Your task to perform on an android device: Open calendar and show me the first week of next month Image 0: 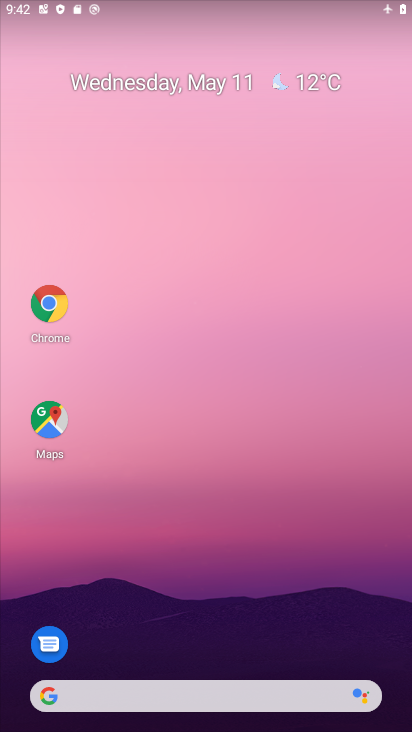
Step 0: drag from (206, 640) to (180, 259)
Your task to perform on an android device: Open calendar and show me the first week of next month Image 1: 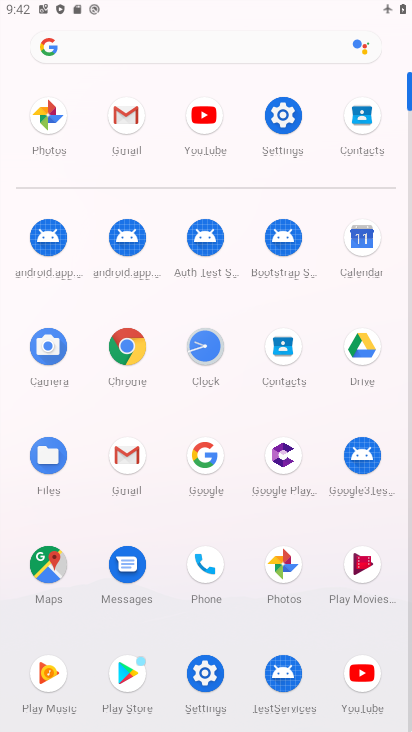
Step 1: click (359, 253)
Your task to perform on an android device: Open calendar and show me the first week of next month Image 2: 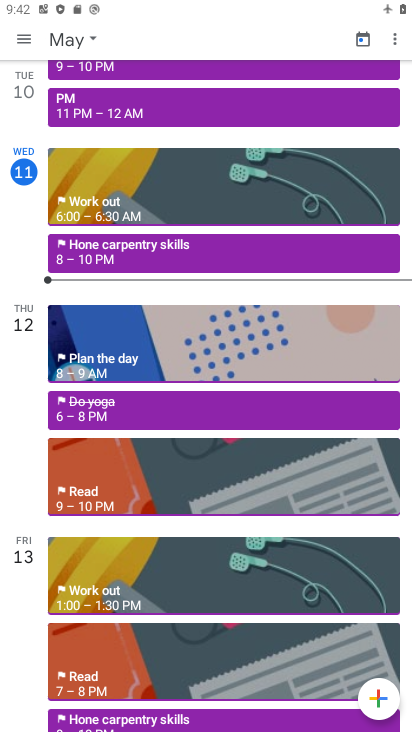
Step 2: click (27, 42)
Your task to perform on an android device: Open calendar and show me the first week of next month Image 3: 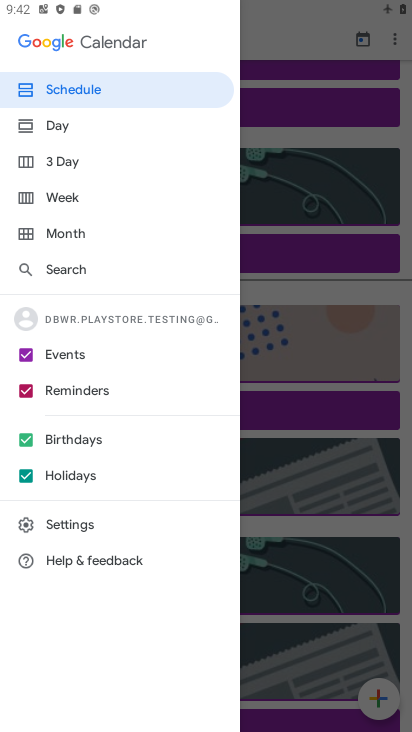
Step 3: click (260, 50)
Your task to perform on an android device: Open calendar and show me the first week of next month Image 4: 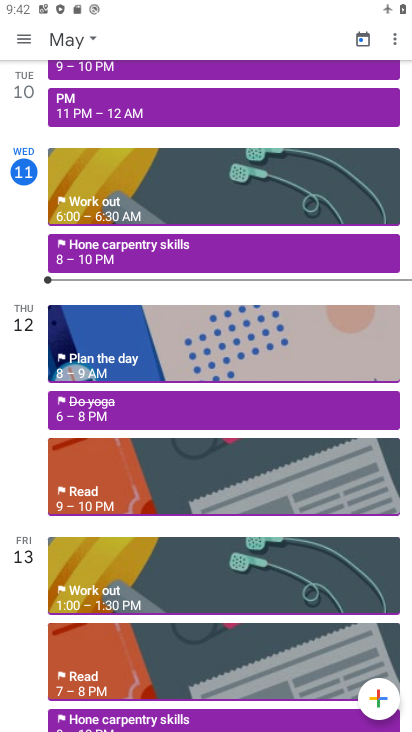
Step 4: click (90, 48)
Your task to perform on an android device: Open calendar and show me the first week of next month Image 5: 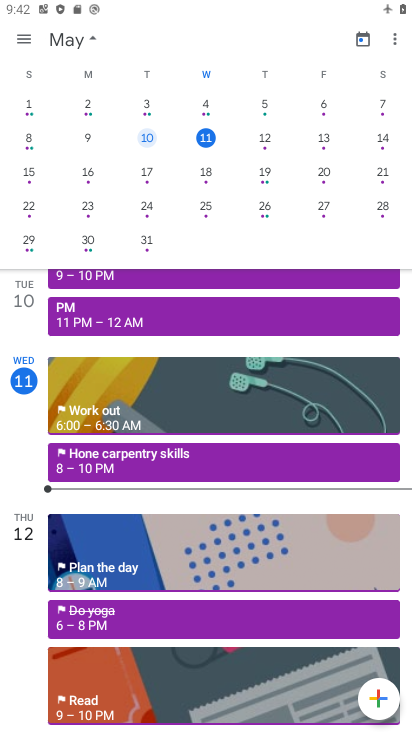
Step 5: drag from (293, 175) to (27, 194)
Your task to perform on an android device: Open calendar and show me the first week of next month Image 6: 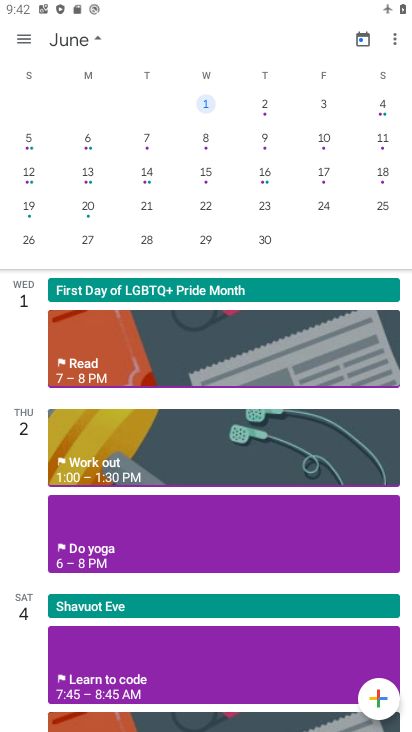
Step 6: click (22, 41)
Your task to perform on an android device: Open calendar and show me the first week of next month Image 7: 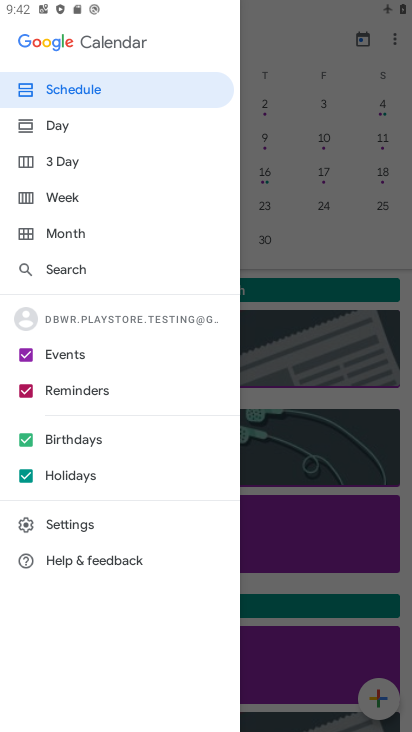
Step 7: click (27, 199)
Your task to perform on an android device: Open calendar and show me the first week of next month Image 8: 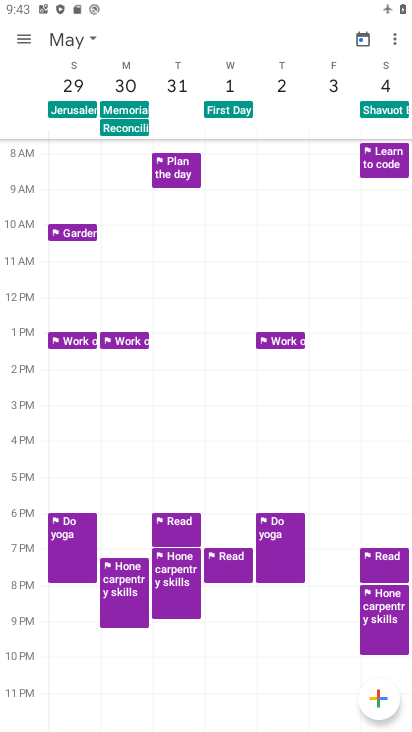
Step 8: task complete